Your task to perform on an android device: turn off location Image 0: 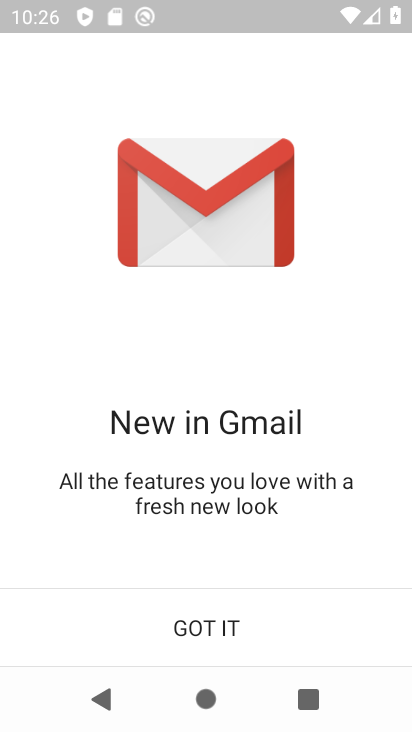
Step 0: press home button
Your task to perform on an android device: turn off location Image 1: 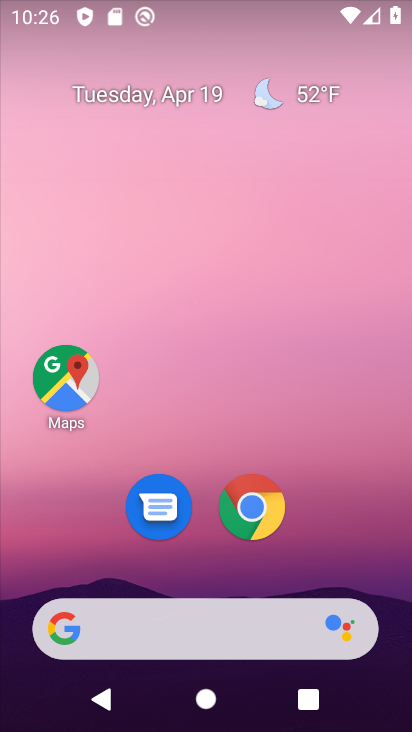
Step 1: drag from (347, 548) to (353, 98)
Your task to perform on an android device: turn off location Image 2: 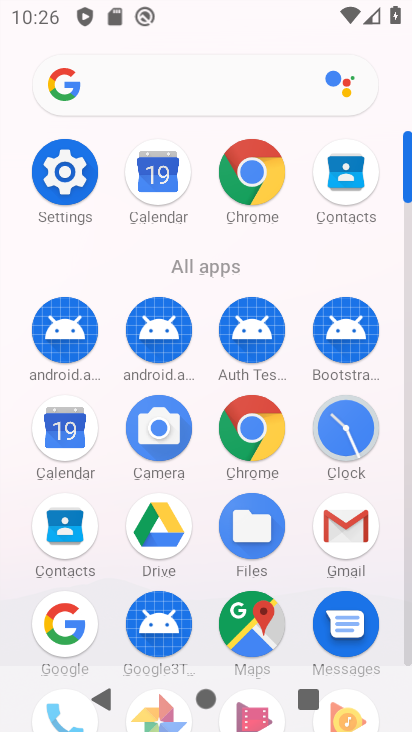
Step 2: drag from (384, 580) to (401, 217)
Your task to perform on an android device: turn off location Image 3: 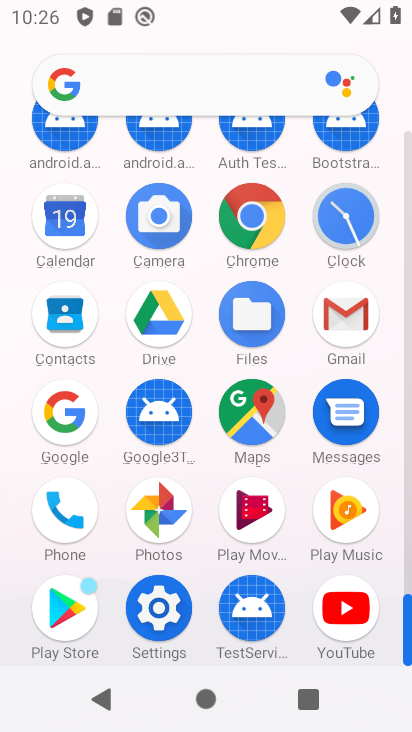
Step 3: click (150, 622)
Your task to perform on an android device: turn off location Image 4: 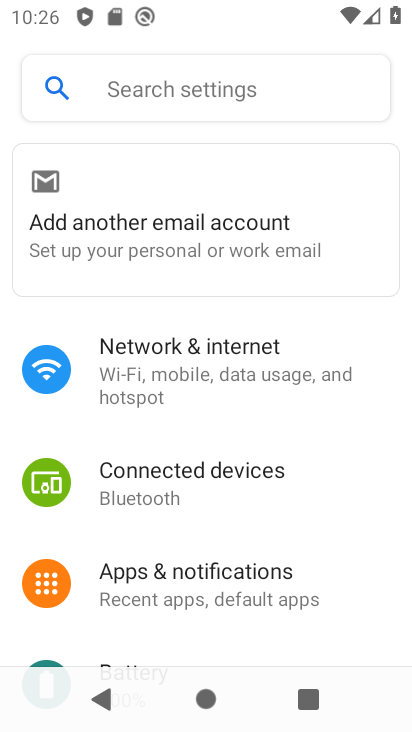
Step 4: drag from (346, 515) to (376, 311)
Your task to perform on an android device: turn off location Image 5: 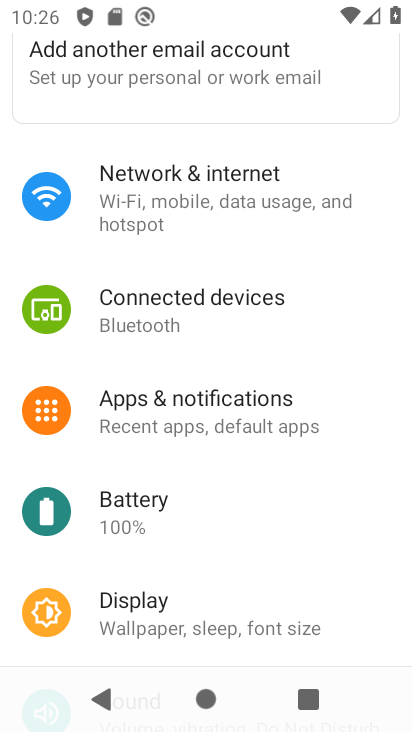
Step 5: drag from (362, 592) to (365, 277)
Your task to perform on an android device: turn off location Image 6: 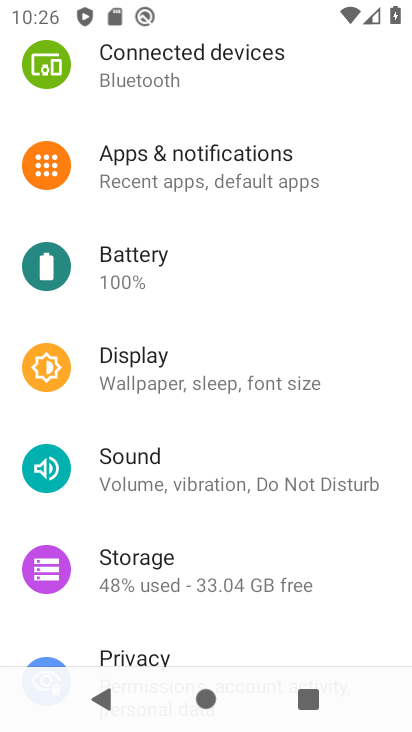
Step 6: drag from (353, 570) to (380, 320)
Your task to perform on an android device: turn off location Image 7: 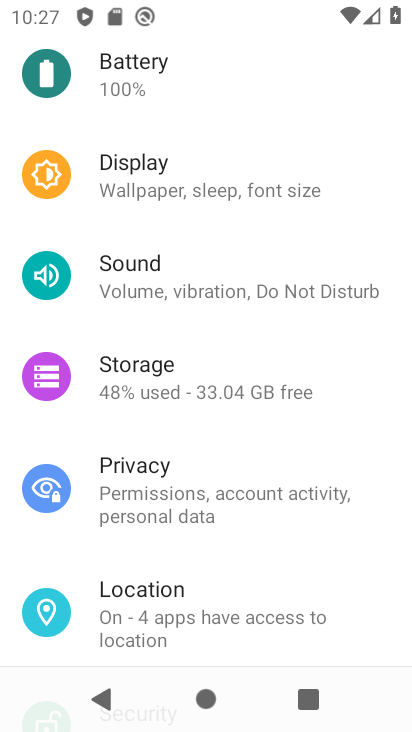
Step 7: click (207, 618)
Your task to perform on an android device: turn off location Image 8: 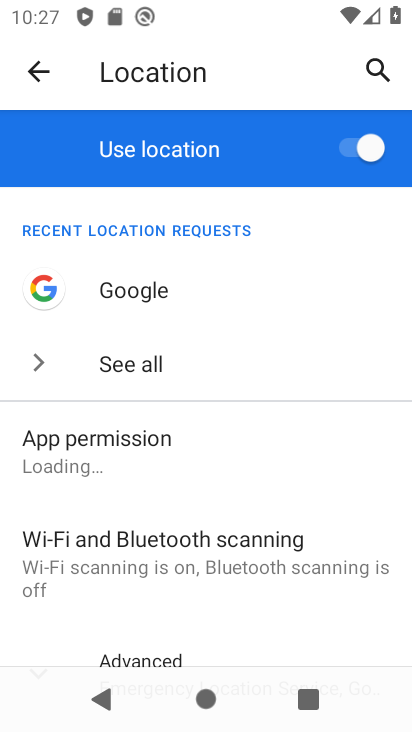
Step 8: click (343, 145)
Your task to perform on an android device: turn off location Image 9: 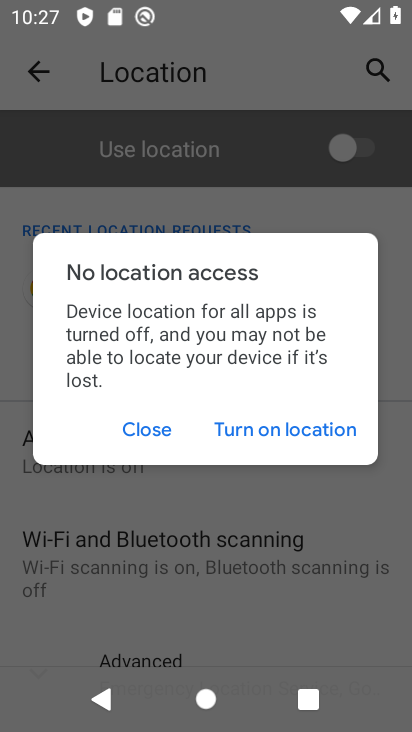
Step 9: task complete